Your task to perform on an android device: Open the web browser Image 0: 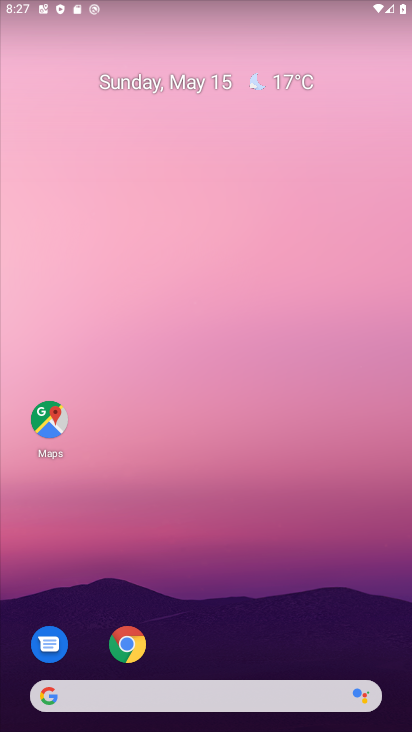
Step 0: drag from (274, 685) to (136, 102)
Your task to perform on an android device: Open the web browser Image 1: 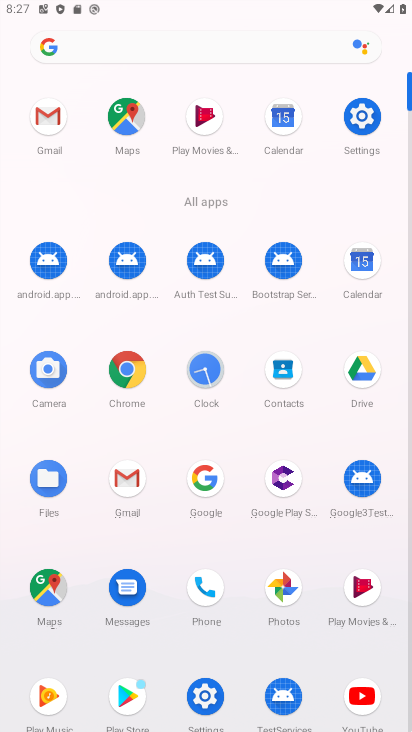
Step 1: click (132, 370)
Your task to perform on an android device: Open the web browser Image 2: 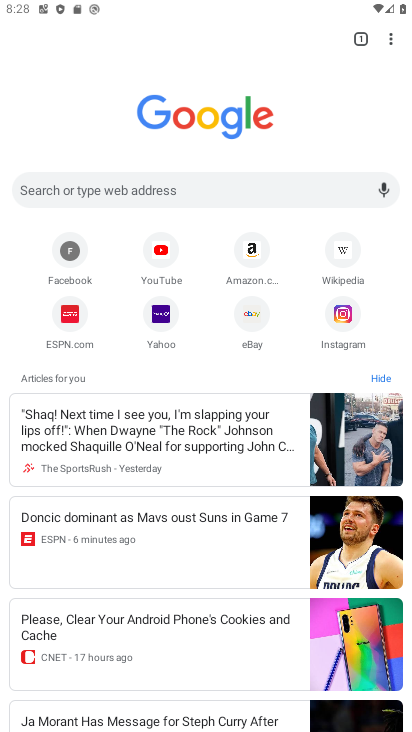
Step 2: click (228, 189)
Your task to perform on an android device: Open the web browser Image 3: 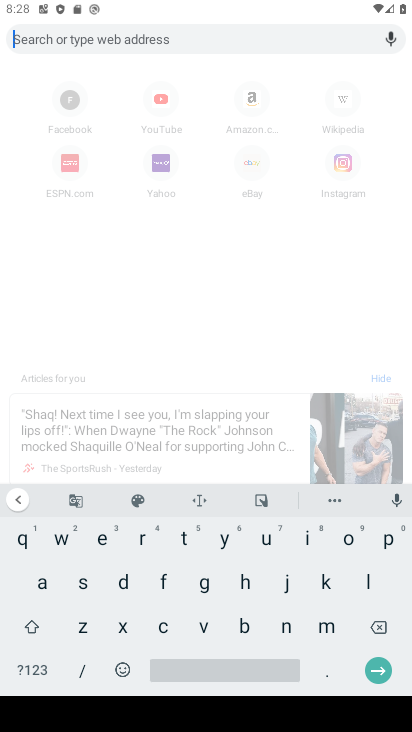
Step 3: task complete